Your task to perform on an android device: turn off notifications settings in the gmail app Image 0: 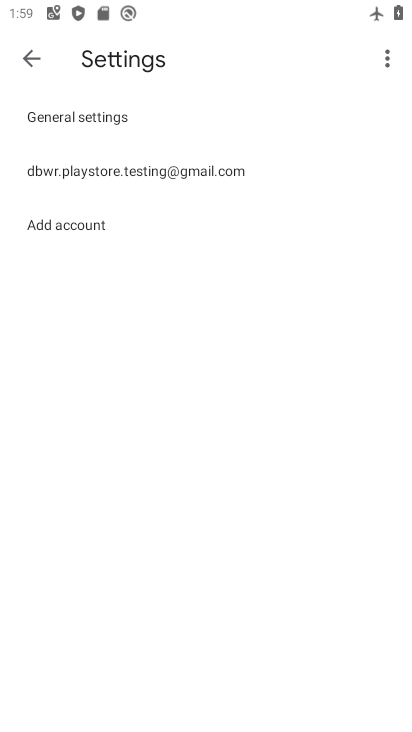
Step 0: press home button
Your task to perform on an android device: turn off notifications settings in the gmail app Image 1: 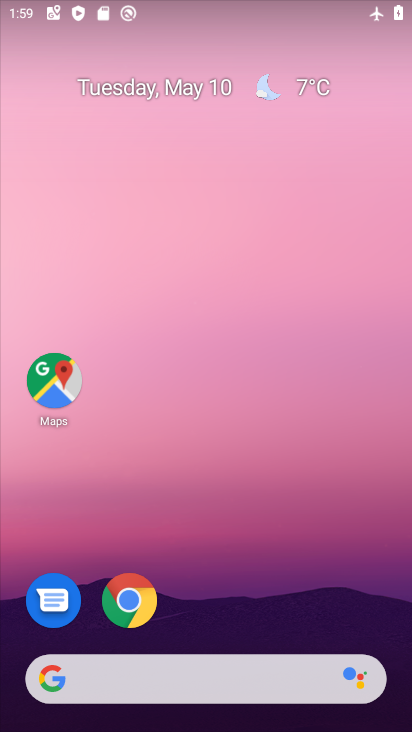
Step 1: drag from (188, 624) to (310, 165)
Your task to perform on an android device: turn off notifications settings in the gmail app Image 2: 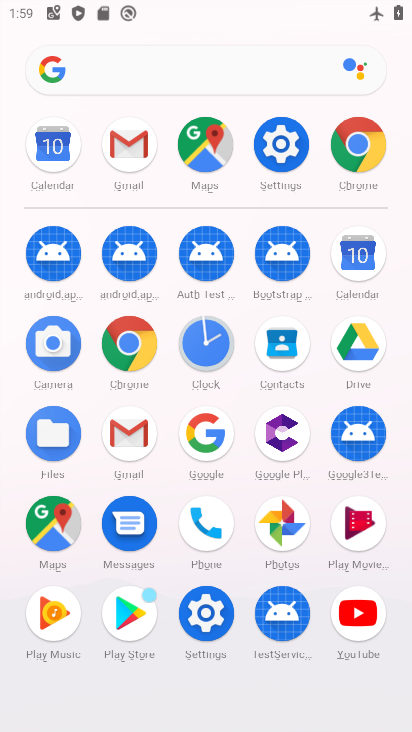
Step 2: click (131, 155)
Your task to perform on an android device: turn off notifications settings in the gmail app Image 3: 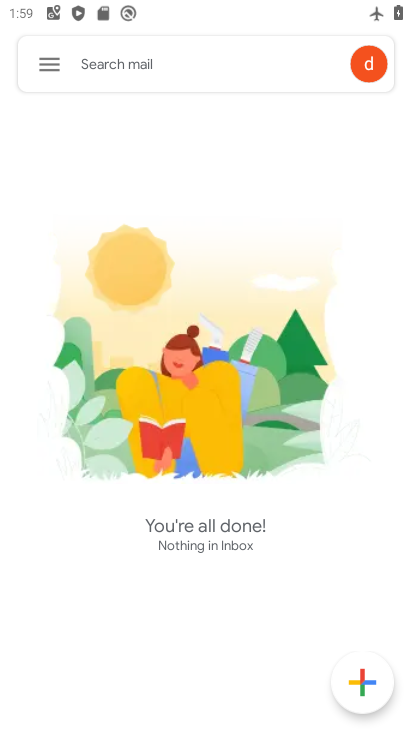
Step 3: click (42, 64)
Your task to perform on an android device: turn off notifications settings in the gmail app Image 4: 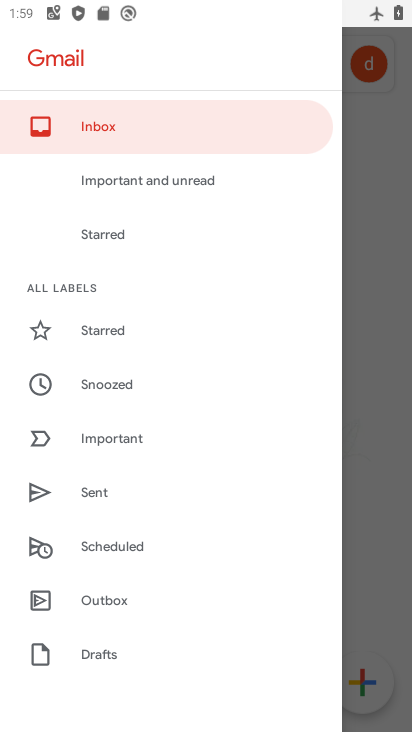
Step 4: drag from (150, 632) to (257, 269)
Your task to perform on an android device: turn off notifications settings in the gmail app Image 5: 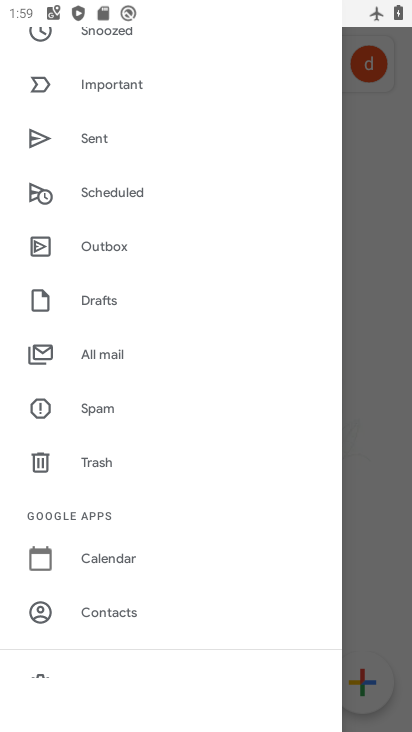
Step 5: drag from (141, 608) to (172, 120)
Your task to perform on an android device: turn off notifications settings in the gmail app Image 6: 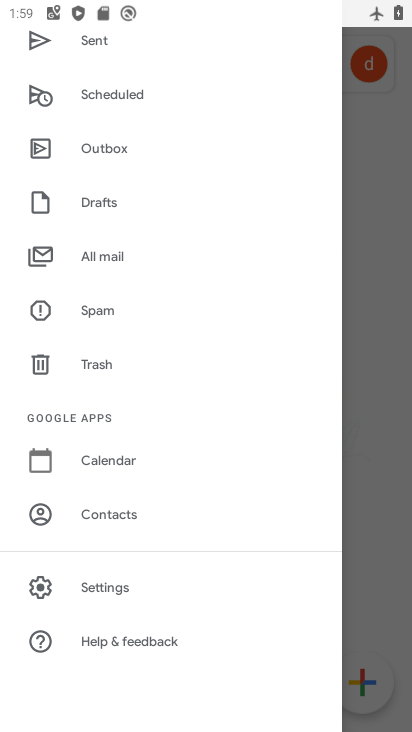
Step 6: click (97, 592)
Your task to perform on an android device: turn off notifications settings in the gmail app Image 7: 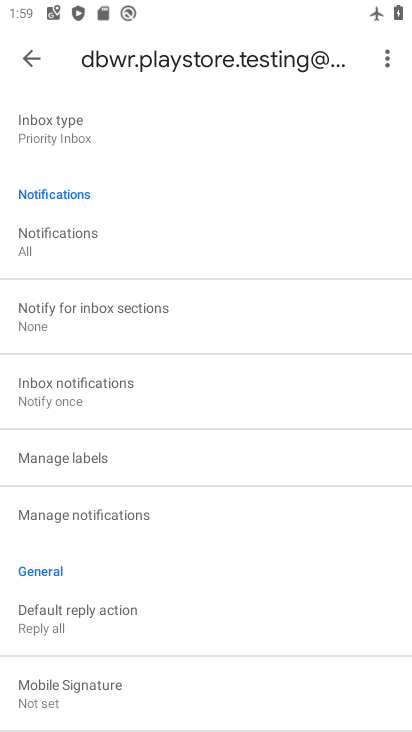
Step 7: click (69, 245)
Your task to perform on an android device: turn off notifications settings in the gmail app Image 8: 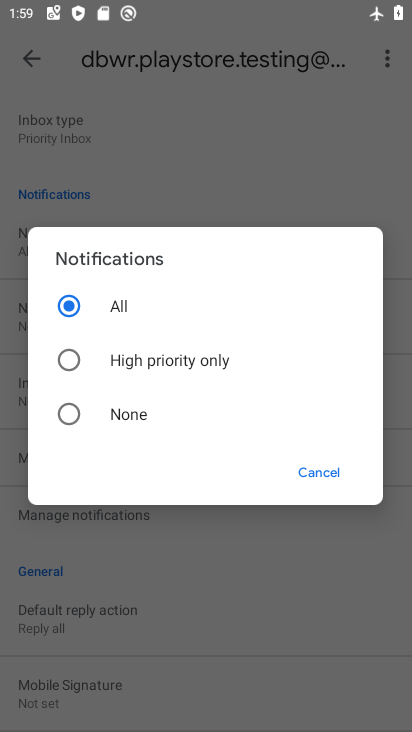
Step 8: click (73, 410)
Your task to perform on an android device: turn off notifications settings in the gmail app Image 9: 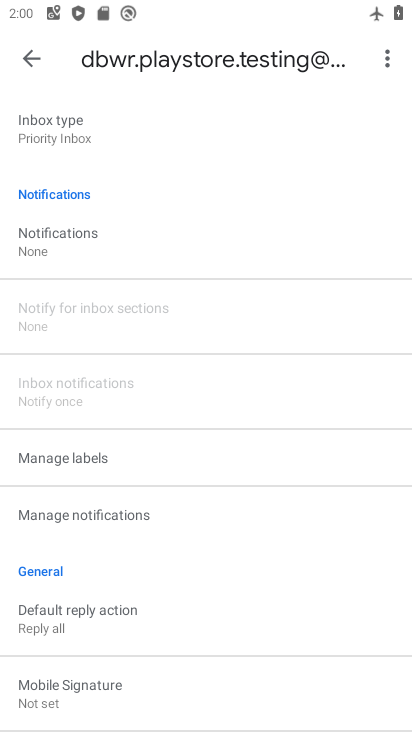
Step 9: task complete